Your task to perform on an android device: turn off priority inbox in the gmail app Image 0: 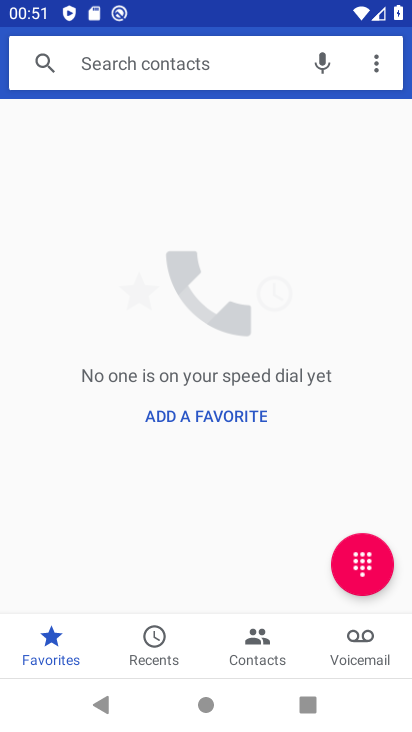
Step 0: press home button
Your task to perform on an android device: turn off priority inbox in the gmail app Image 1: 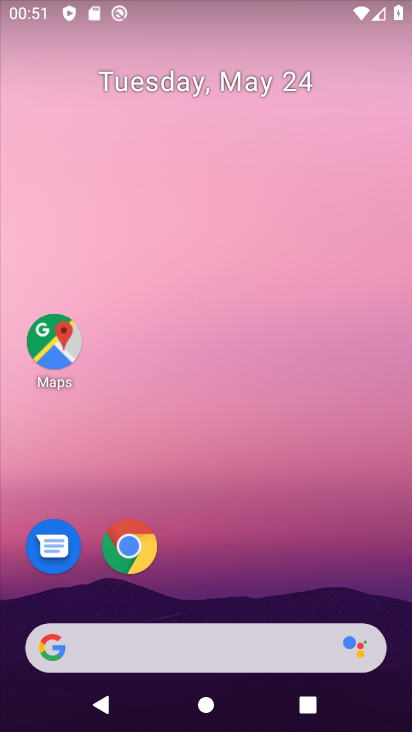
Step 1: drag from (281, 676) to (350, 18)
Your task to perform on an android device: turn off priority inbox in the gmail app Image 2: 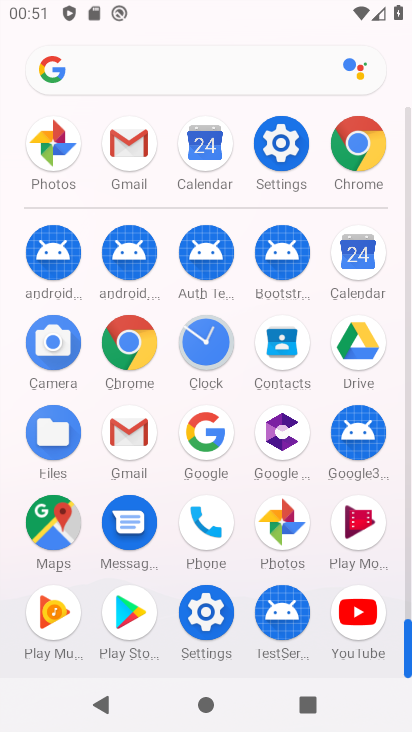
Step 2: click (138, 425)
Your task to perform on an android device: turn off priority inbox in the gmail app Image 3: 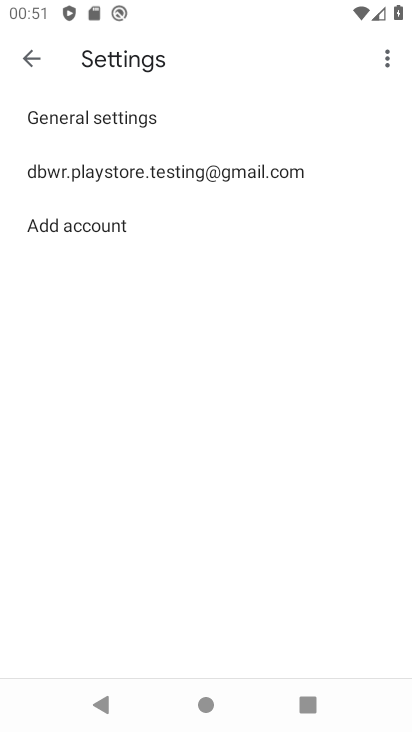
Step 3: press back button
Your task to perform on an android device: turn off priority inbox in the gmail app Image 4: 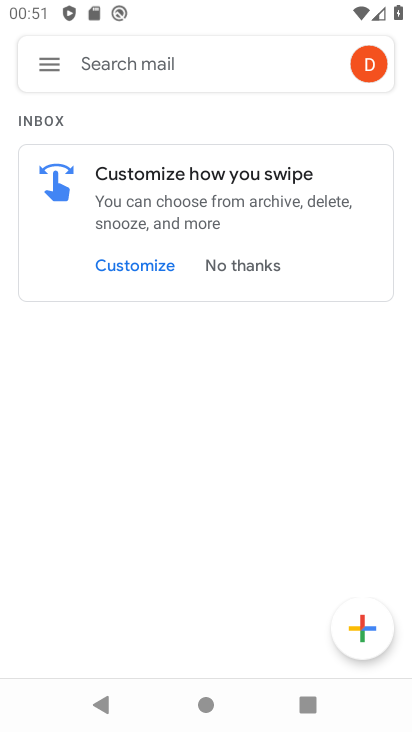
Step 4: click (51, 59)
Your task to perform on an android device: turn off priority inbox in the gmail app Image 5: 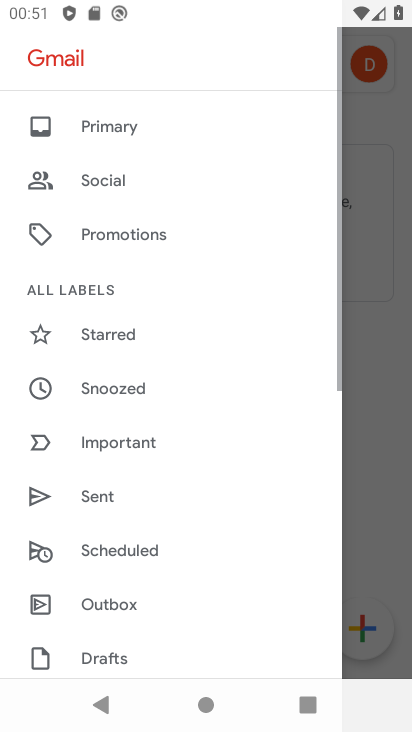
Step 5: drag from (241, 604) to (318, 34)
Your task to perform on an android device: turn off priority inbox in the gmail app Image 6: 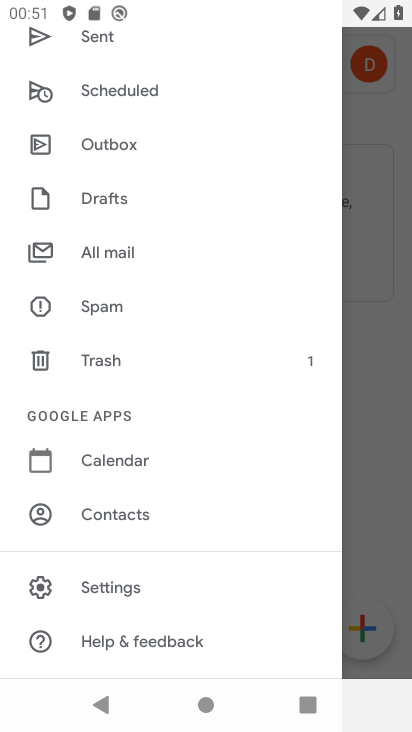
Step 6: click (104, 591)
Your task to perform on an android device: turn off priority inbox in the gmail app Image 7: 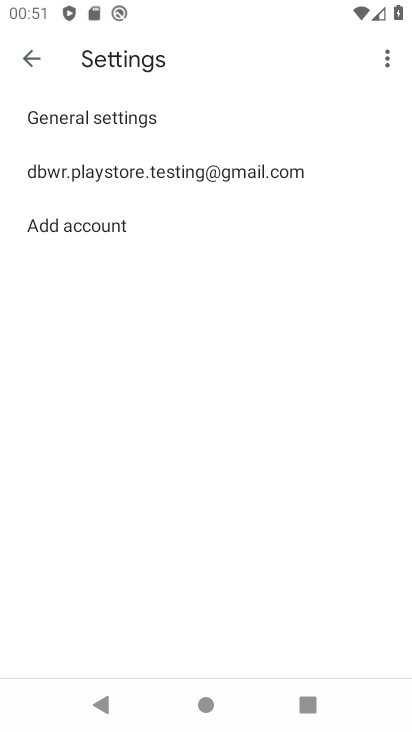
Step 7: click (173, 167)
Your task to perform on an android device: turn off priority inbox in the gmail app Image 8: 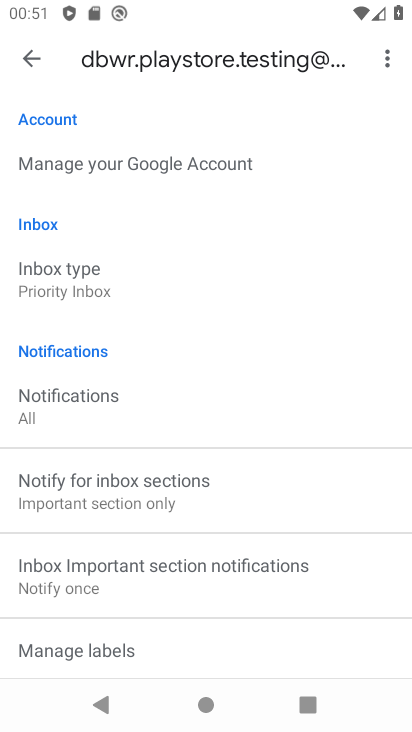
Step 8: click (118, 280)
Your task to perform on an android device: turn off priority inbox in the gmail app Image 9: 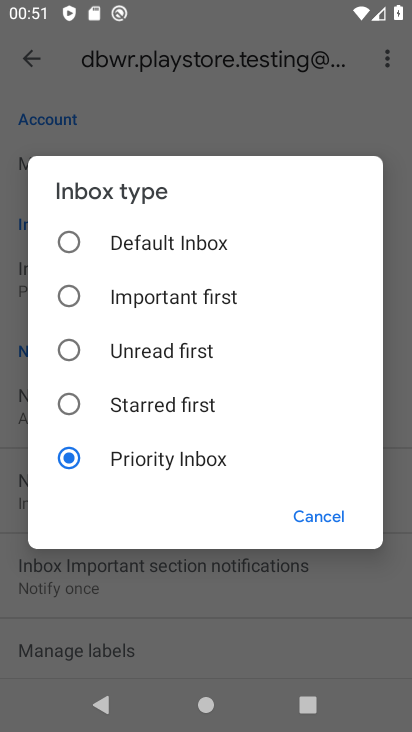
Step 9: click (67, 244)
Your task to perform on an android device: turn off priority inbox in the gmail app Image 10: 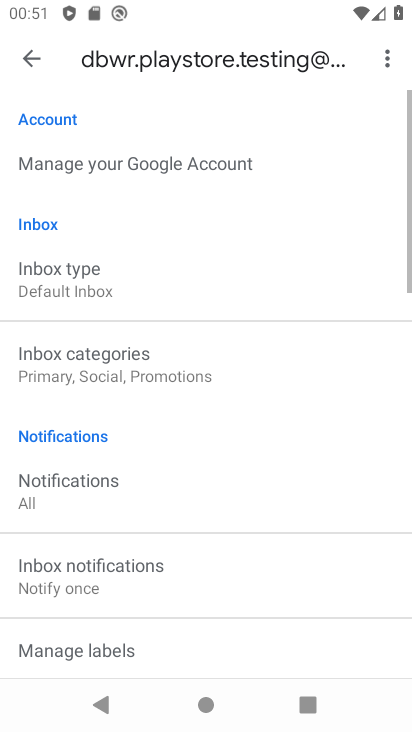
Step 10: task complete